Your task to perform on an android device: Open Google Image 0: 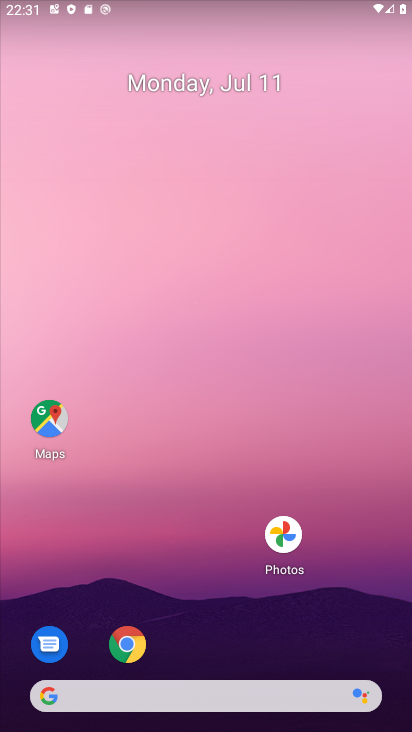
Step 0: click (152, 30)
Your task to perform on an android device: Open Google Image 1: 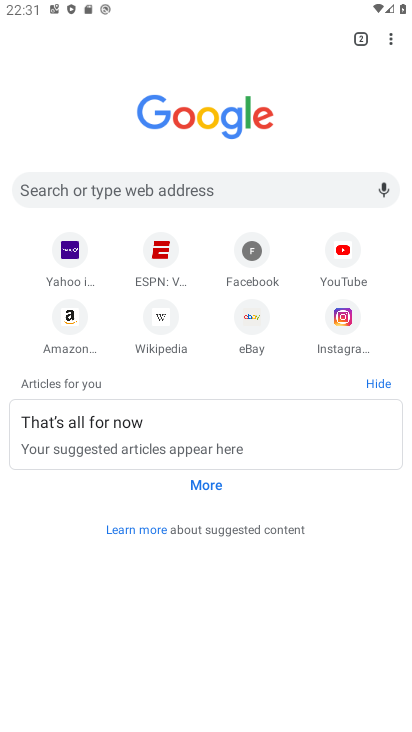
Step 1: task complete